Your task to perform on an android device: turn on notifications settings in the gmail app Image 0: 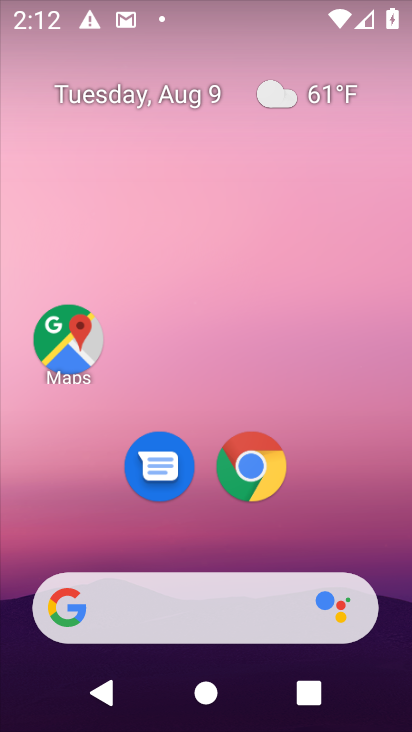
Step 0: drag from (224, 462) to (267, 56)
Your task to perform on an android device: turn on notifications settings in the gmail app Image 1: 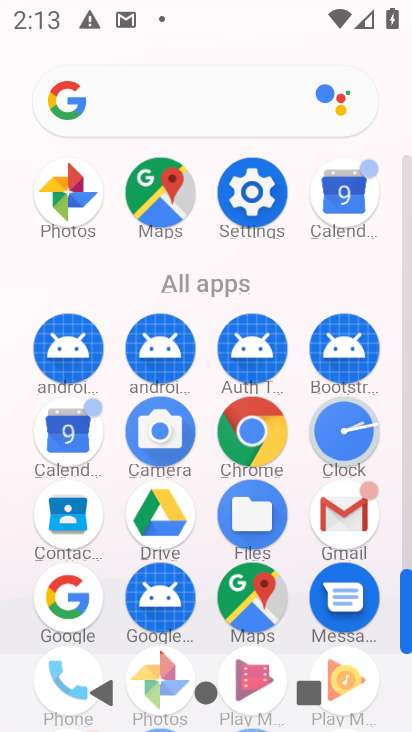
Step 1: click (350, 512)
Your task to perform on an android device: turn on notifications settings in the gmail app Image 2: 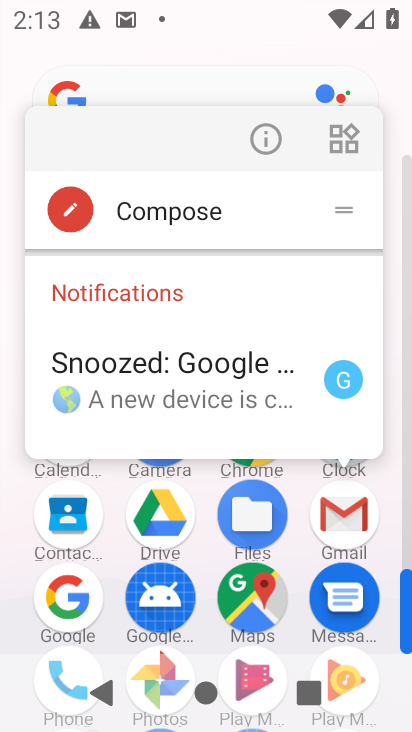
Step 2: click (265, 148)
Your task to perform on an android device: turn on notifications settings in the gmail app Image 3: 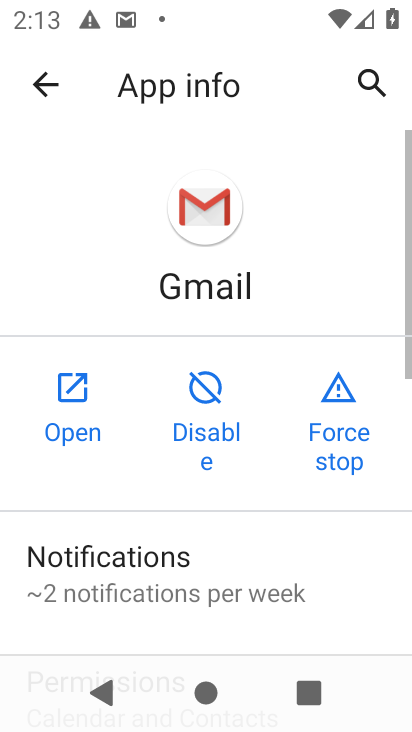
Step 3: click (146, 557)
Your task to perform on an android device: turn on notifications settings in the gmail app Image 4: 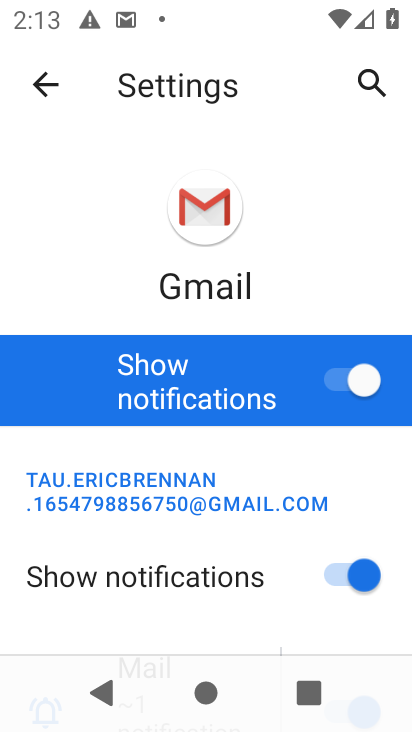
Step 4: task complete